Your task to perform on an android device: open app "Venmo" (install if not already installed) and go to login screen Image 0: 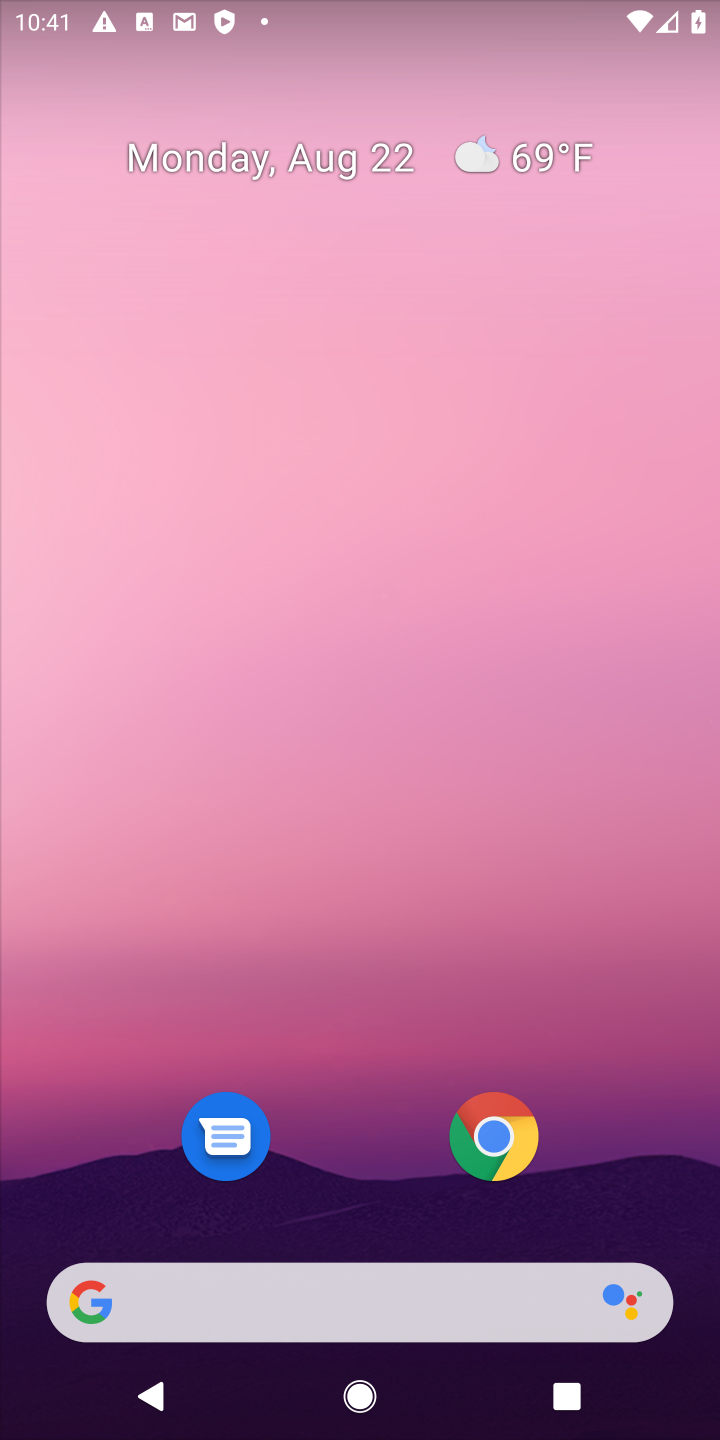
Step 0: drag from (294, 1262) to (309, 544)
Your task to perform on an android device: open app "Venmo" (install if not already installed) and go to login screen Image 1: 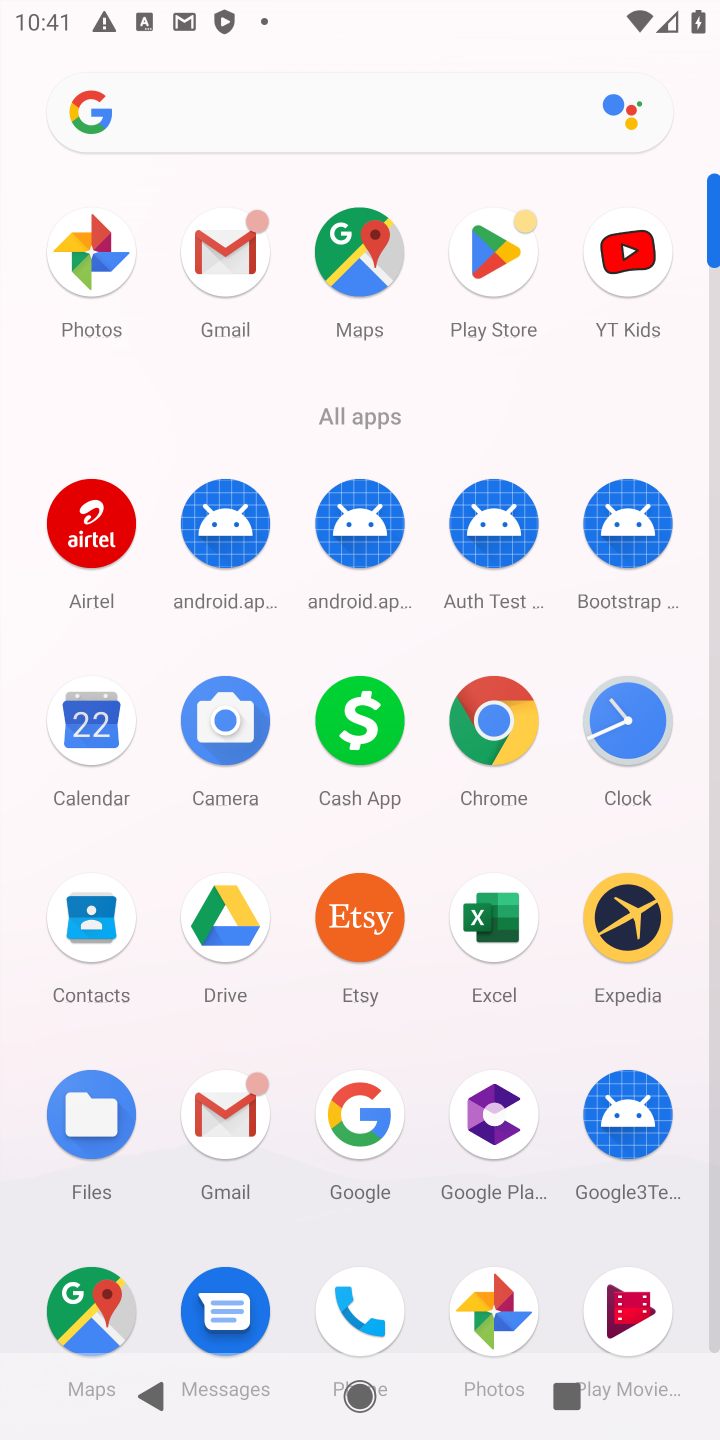
Step 1: click (491, 287)
Your task to perform on an android device: open app "Venmo" (install if not already installed) and go to login screen Image 2: 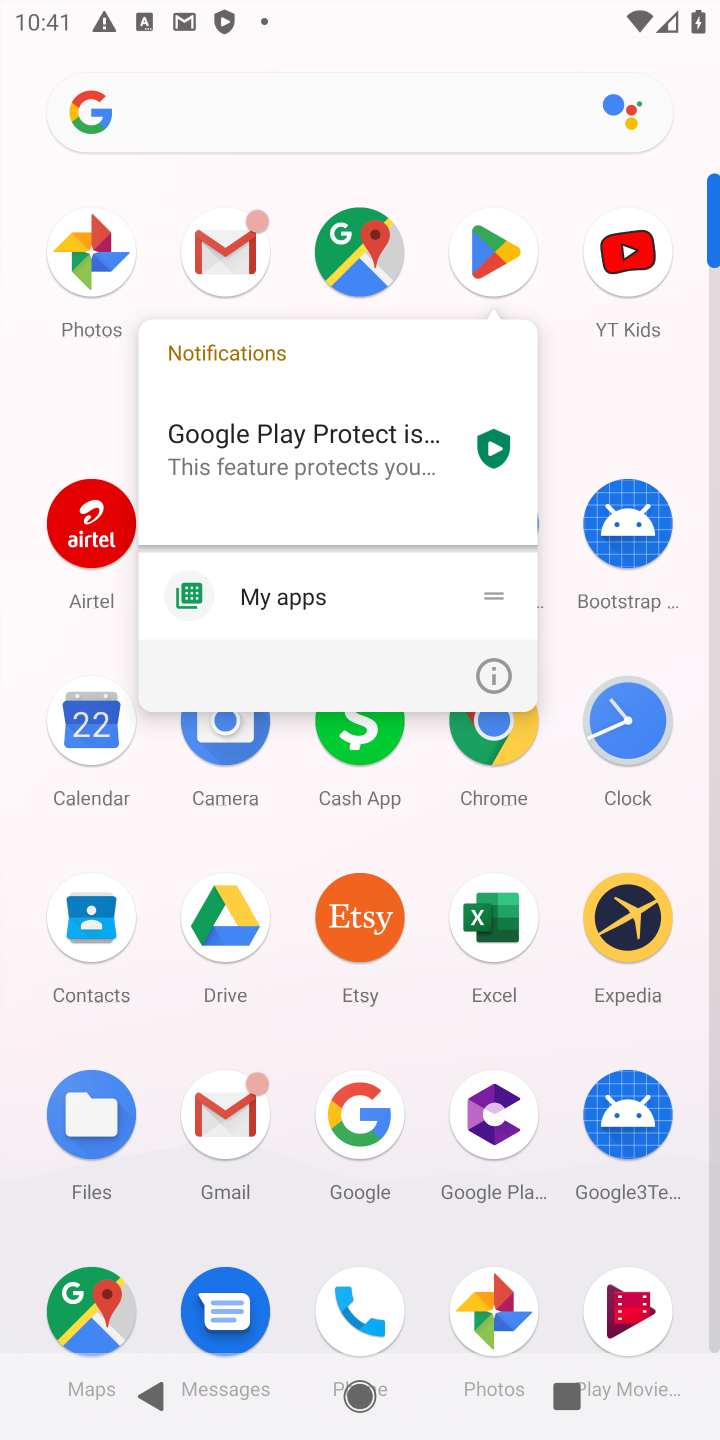
Step 2: click (491, 287)
Your task to perform on an android device: open app "Venmo" (install if not already installed) and go to login screen Image 3: 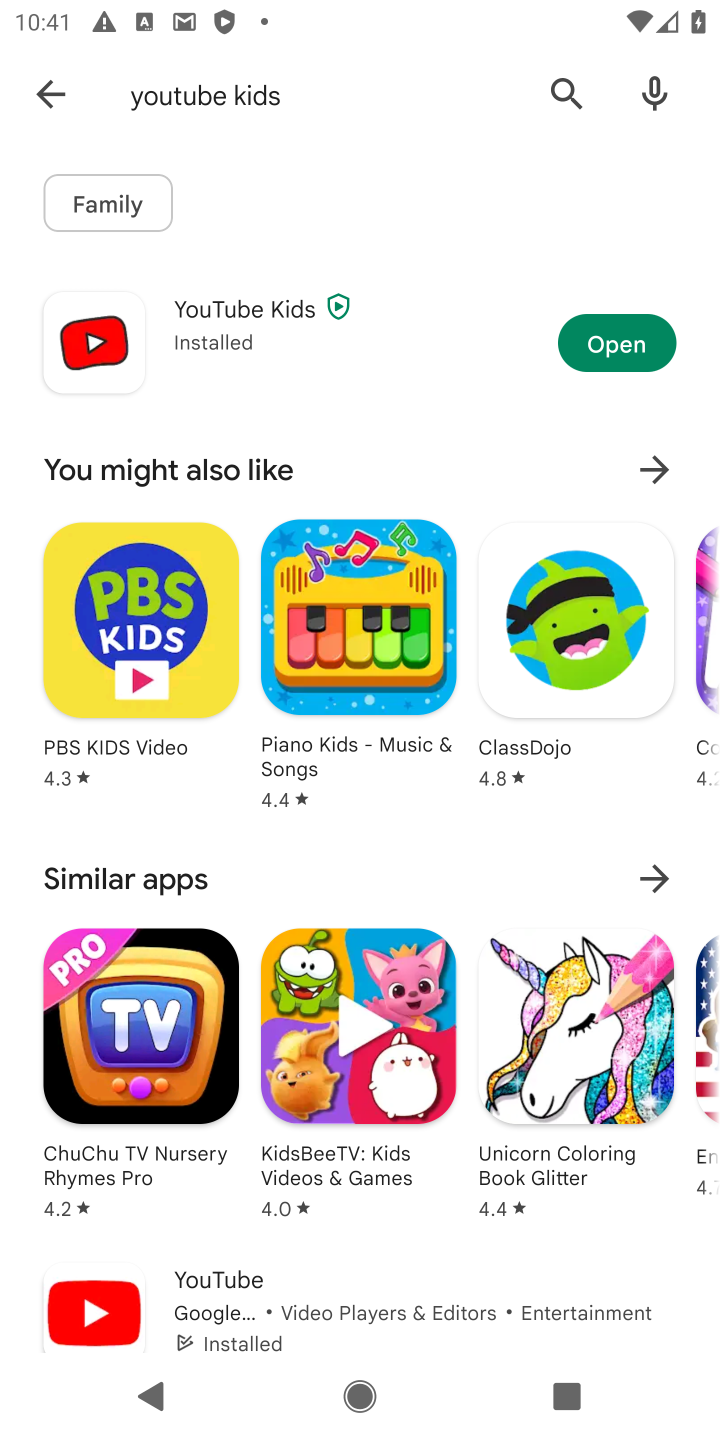
Step 3: click (554, 104)
Your task to perform on an android device: open app "Venmo" (install if not already installed) and go to login screen Image 4: 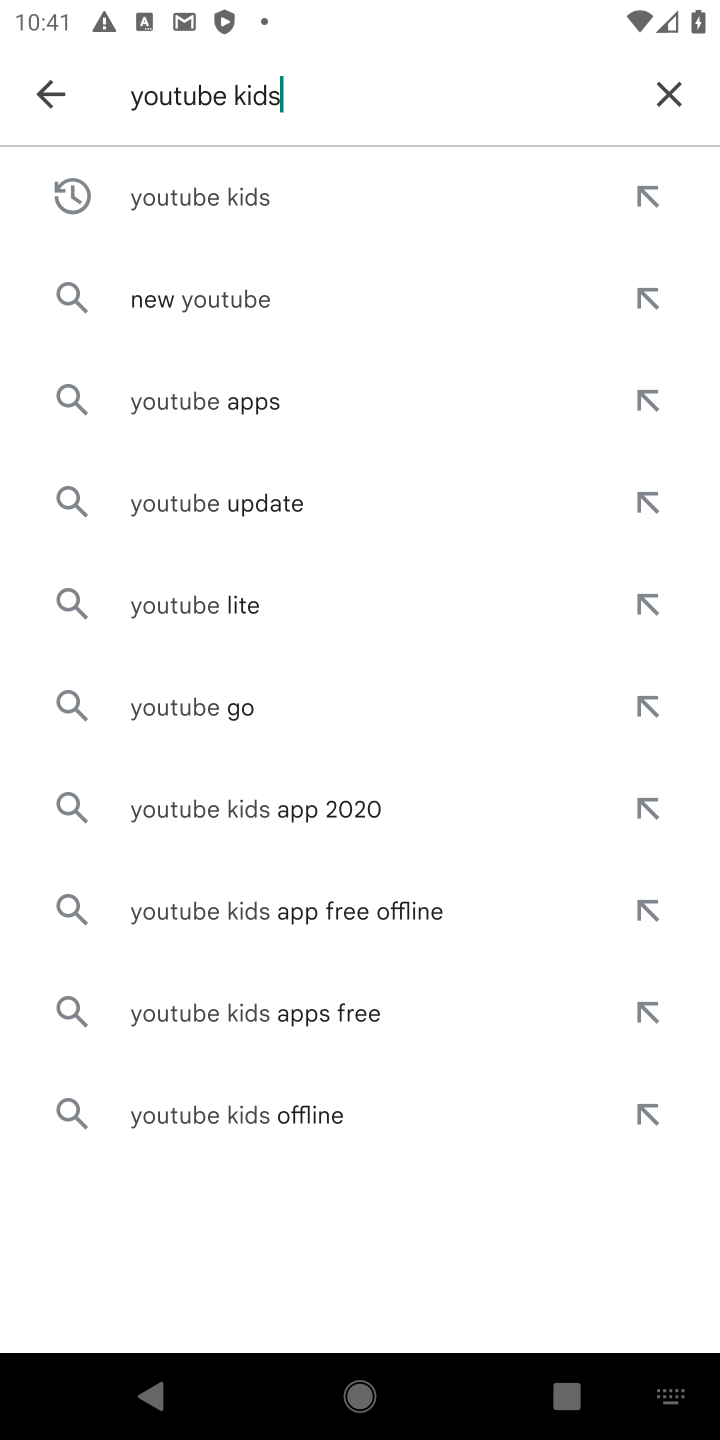
Step 4: click (675, 90)
Your task to perform on an android device: open app "Venmo" (install if not already installed) and go to login screen Image 5: 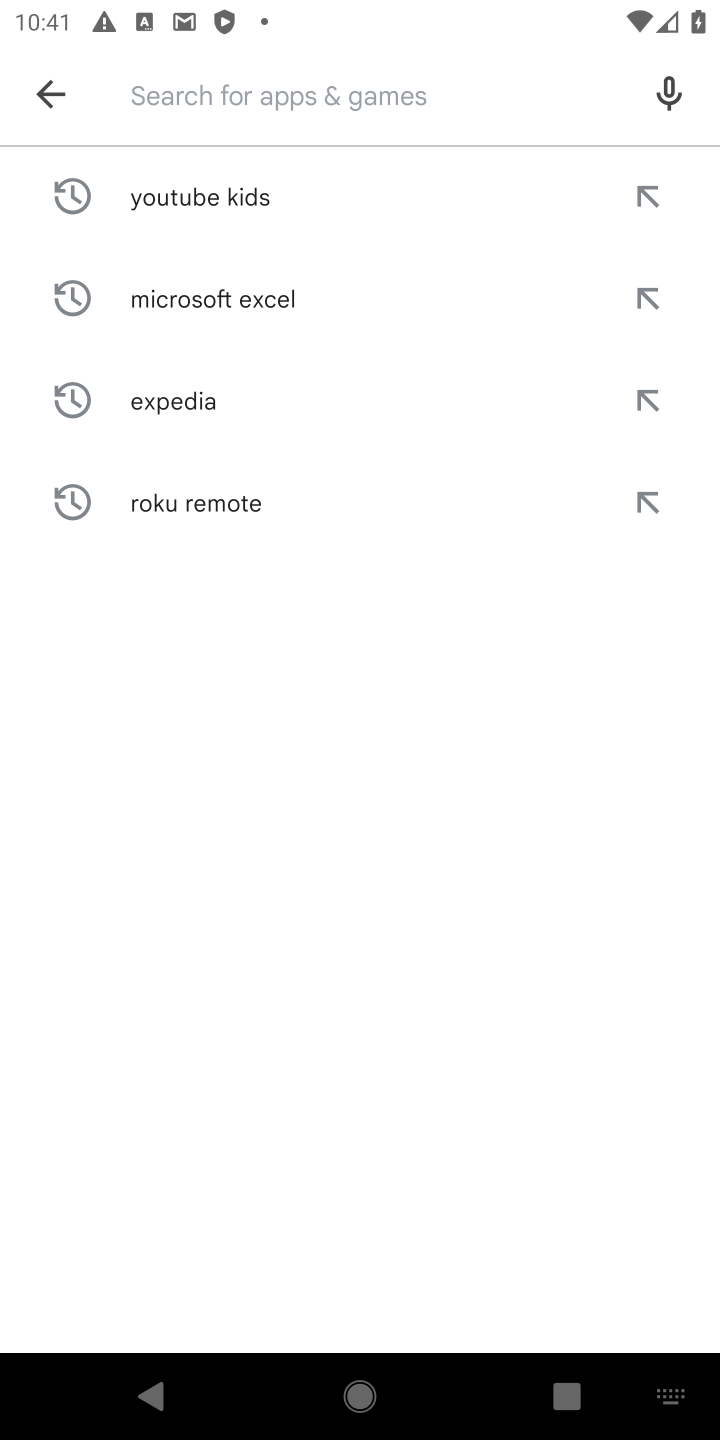
Step 5: type "venmo"
Your task to perform on an android device: open app "Venmo" (install if not already installed) and go to login screen Image 6: 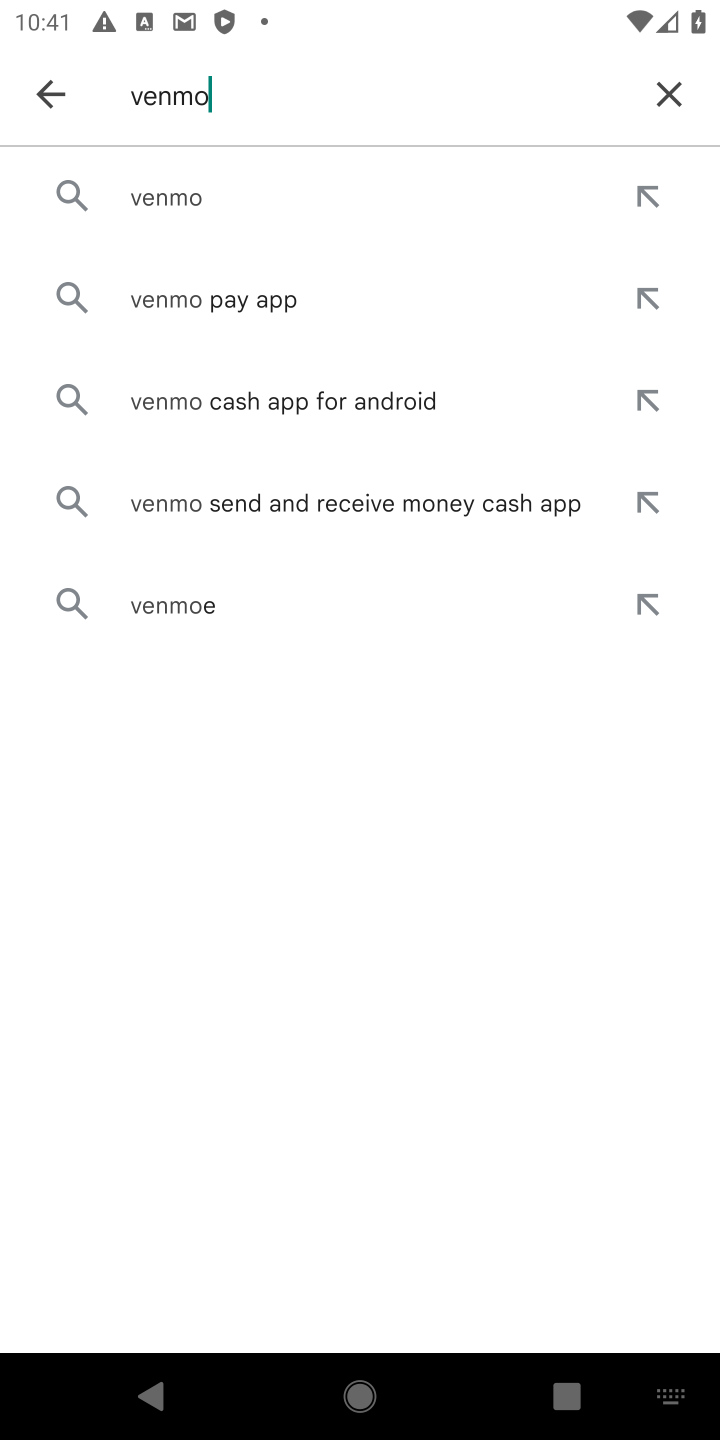
Step 6: click (192, 207)
Your task to perform on an android device: open app "Venmo" (install if not already installed) and go to login screen Image 7: 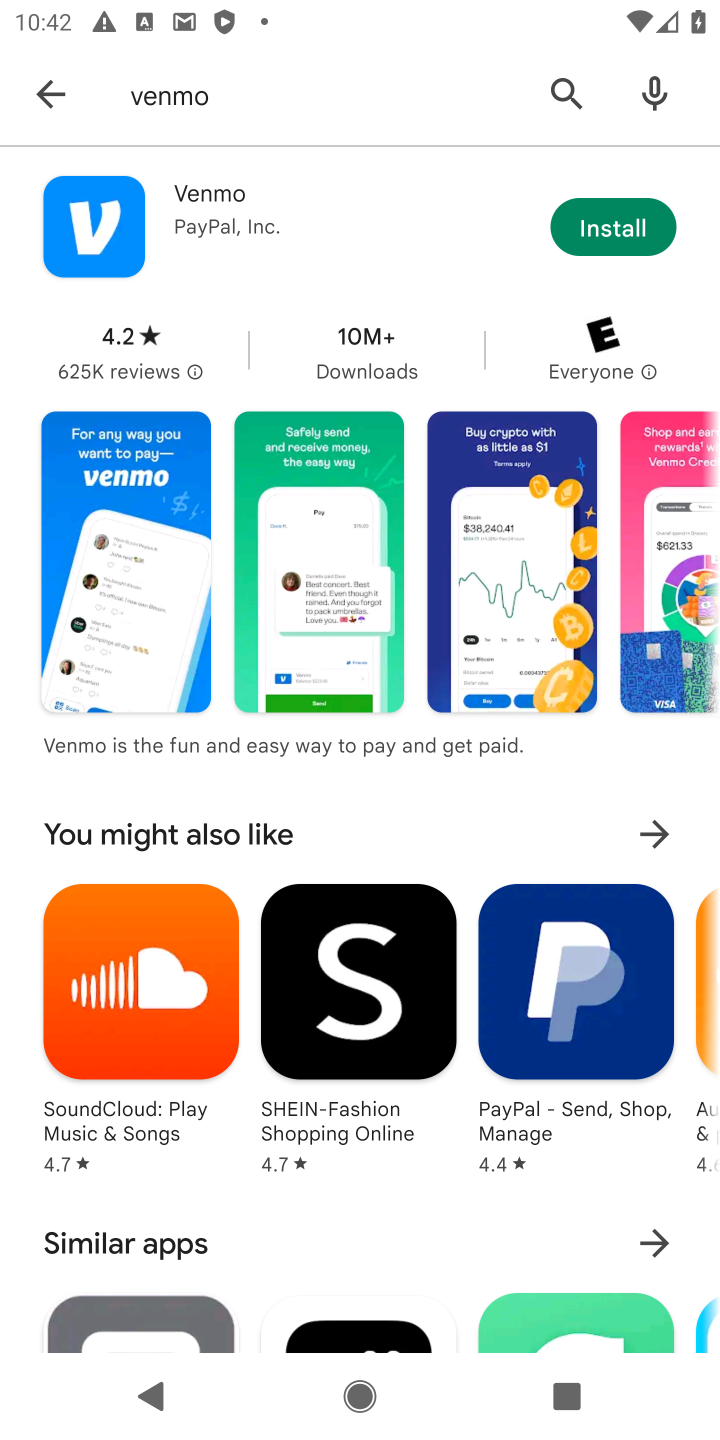
Step 7: click (620, 226)
Your task to perform on an android device: open app "Venmo" (install if not already installed) and go to login screen Image 8: 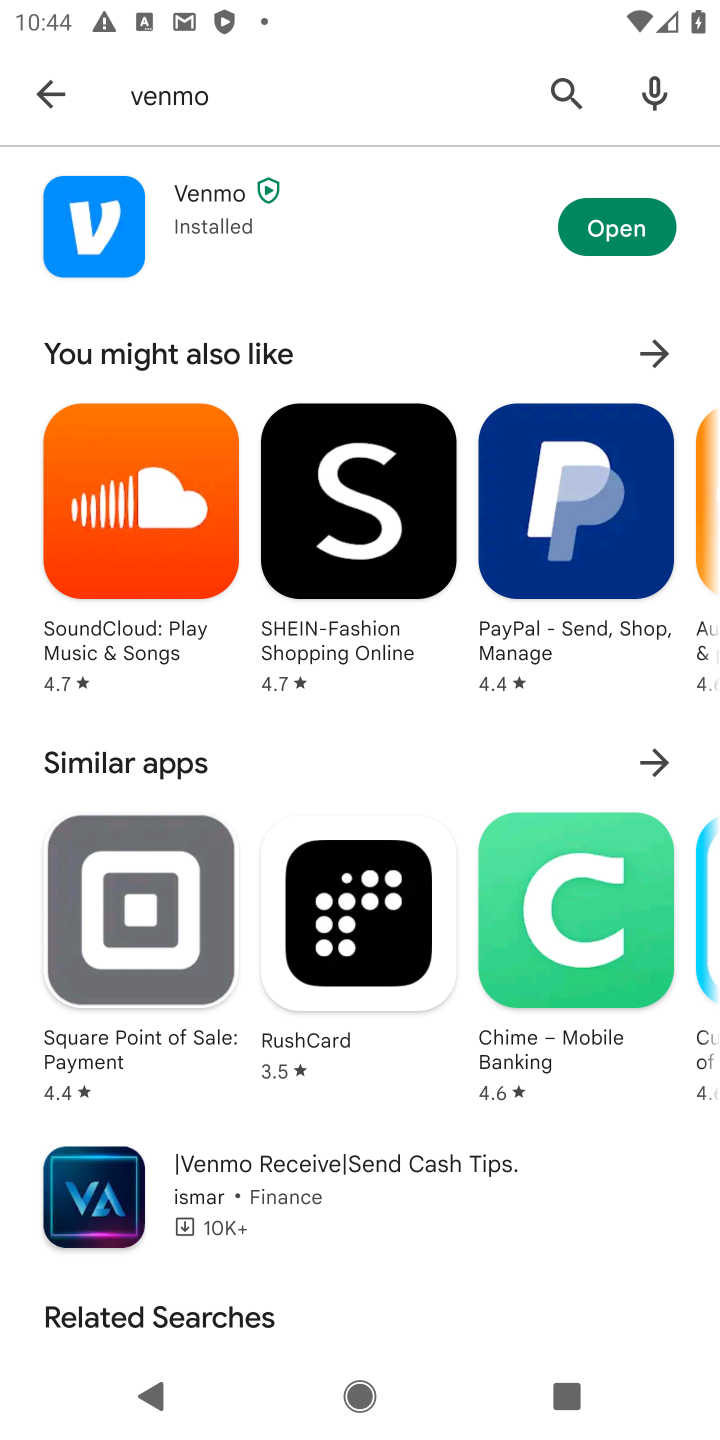
Step 8: click (612, 223)
Your task to perform on an android device: open app "Venmo" (install if not already installed) and go to login screen Image 9: 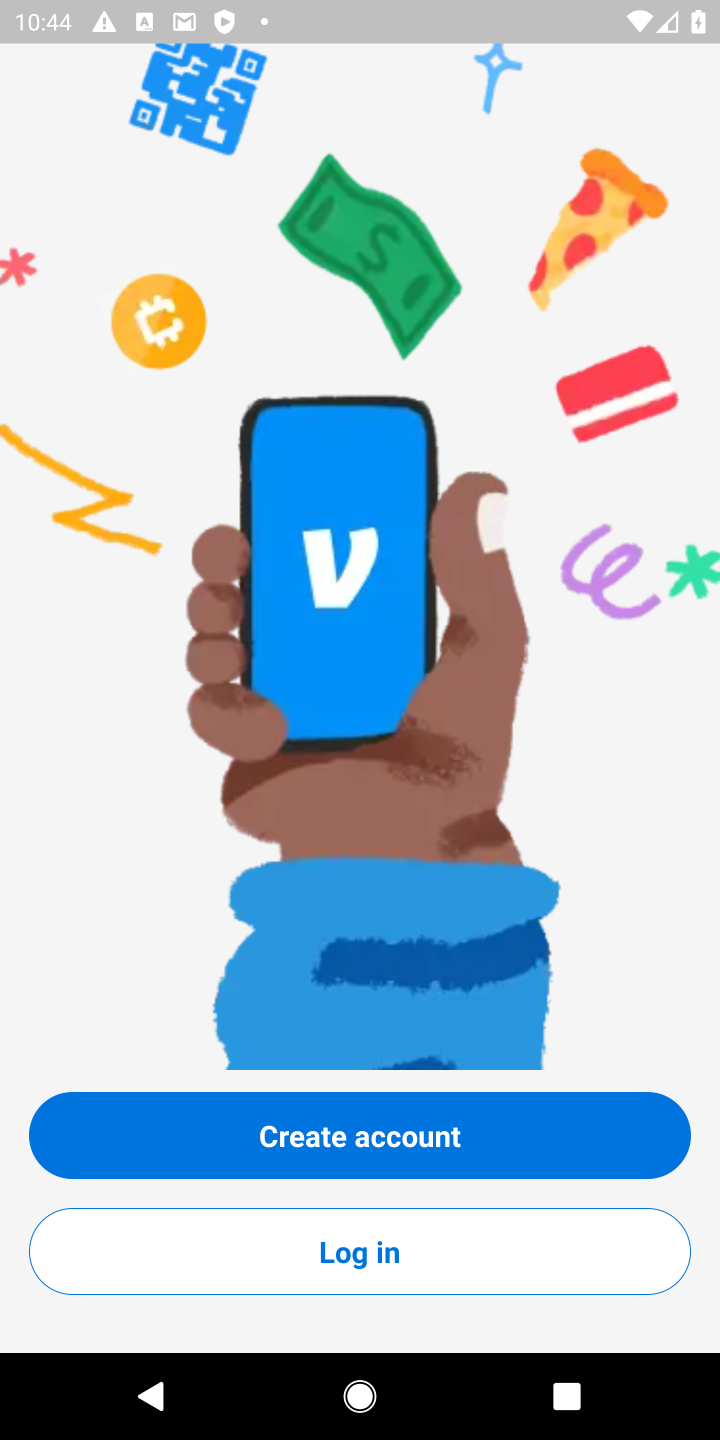
Step 9: click (338, 1256)
Your task to perform on an android device: open app "Venmo" (install if not already installed) and go to login screen Image 10: 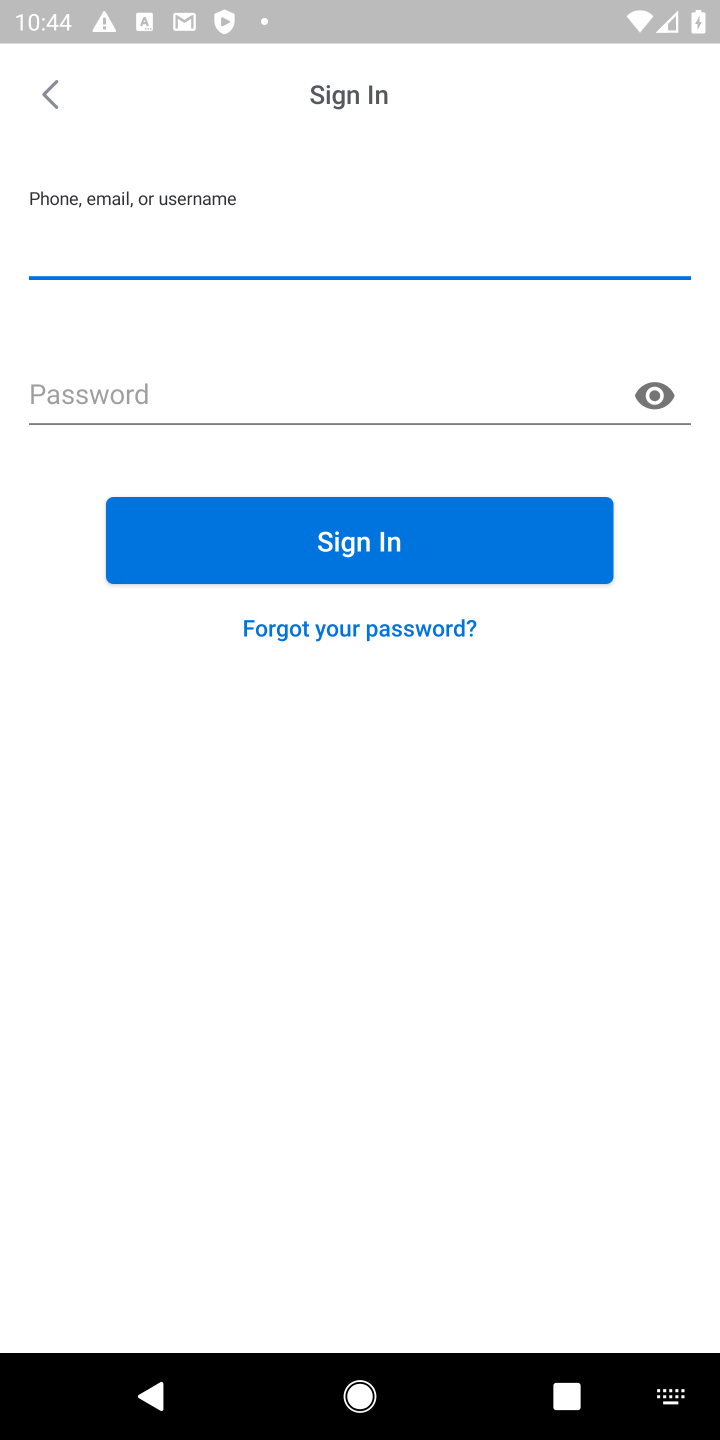
Step 10: task complete